Your task to perform on an android device: turn off priority inbox in the gmail app Image 0: 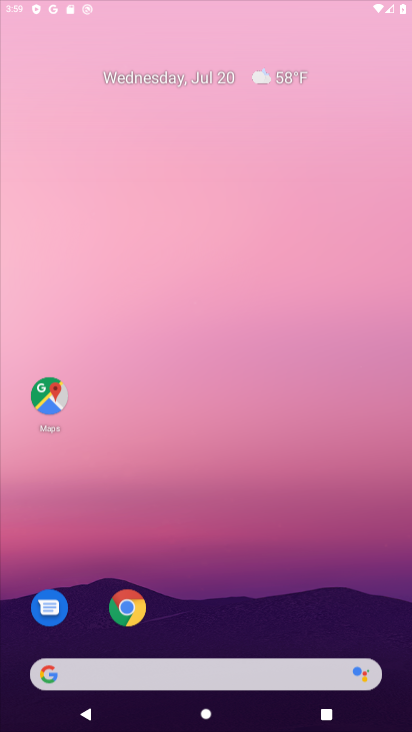
Step 0: drag from (269, 85) to (315, 0)
Your task to perform on an android device: turn off priority inbox in the gmail app Image 1: 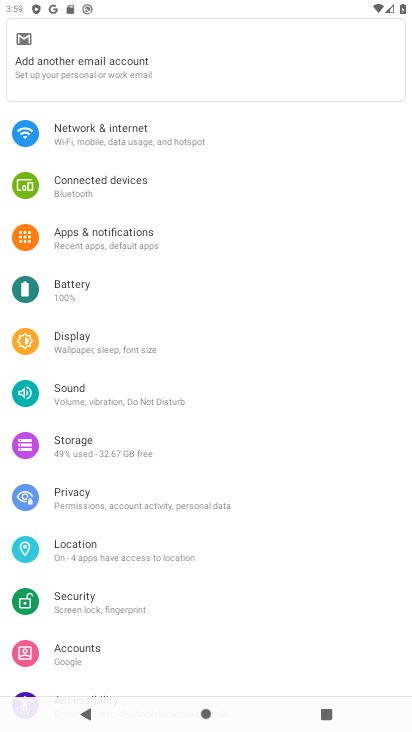
Step 1: press home button
Your task to perform on an android device: turn off priority inbox in the gmail app Image 2: 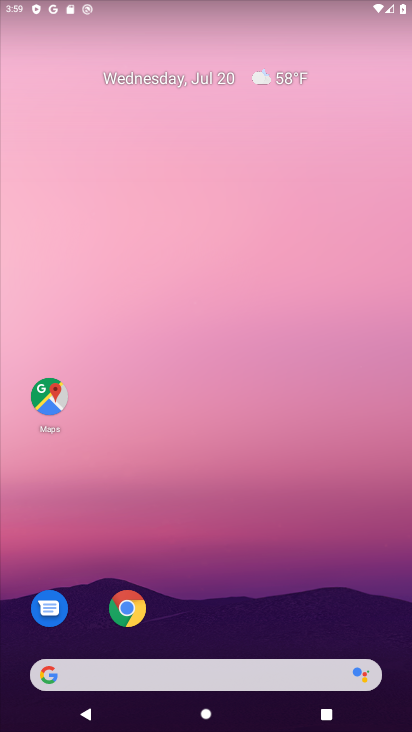
Step 2: drag from (190, 640) to (311, 4)
Your task to perform on an android device: turn off priority inbox in the gmail app Image 3: 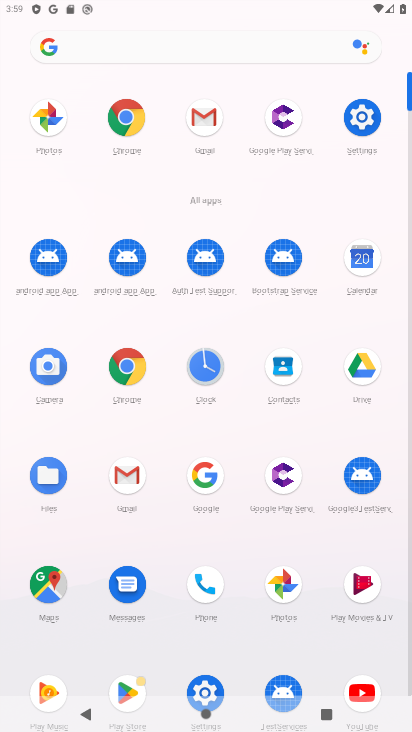
Step 3: click (126, 491)
Your task to perform on an android device: turn off priority inbox in the gmail app Image 4: 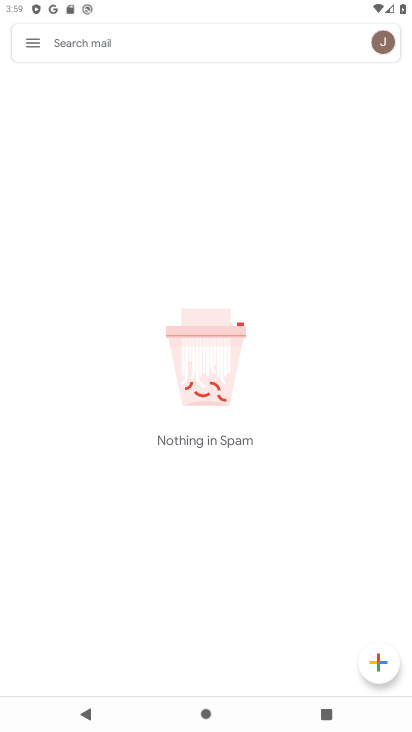
Step 4: click (29, 46)
Your task to perform on an android device: turn off priority inbox in the gmail app Image 5: 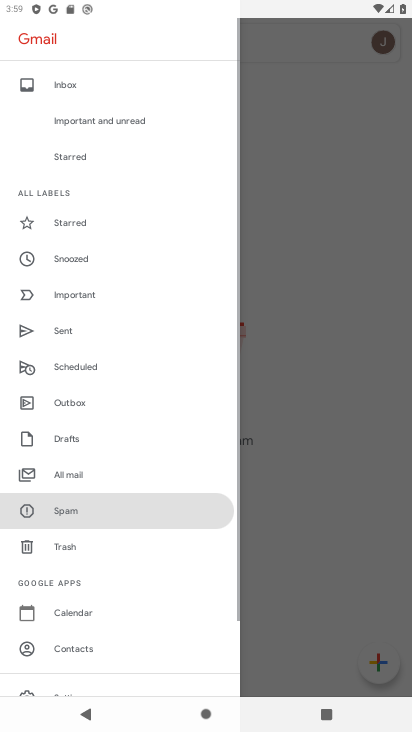
Step 5: drag from (85, 655) to (95, 195)
Your task to perform on an android device: turn off priority inbox in the gmail app Image 6: 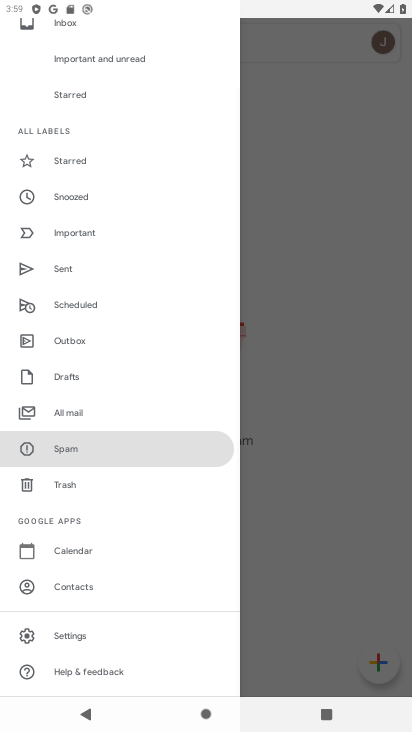
Step 6: click (55, 639)
Your task to perform on an android device: turn off priority inbox in the gmail app Image 7: 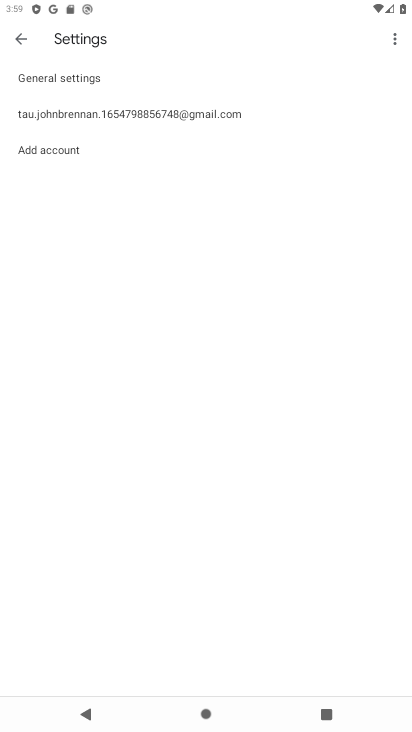
Step 7: click (98, 118)
Your task to perform on an android device: turn off priority inbox in the gmail app Image 8: 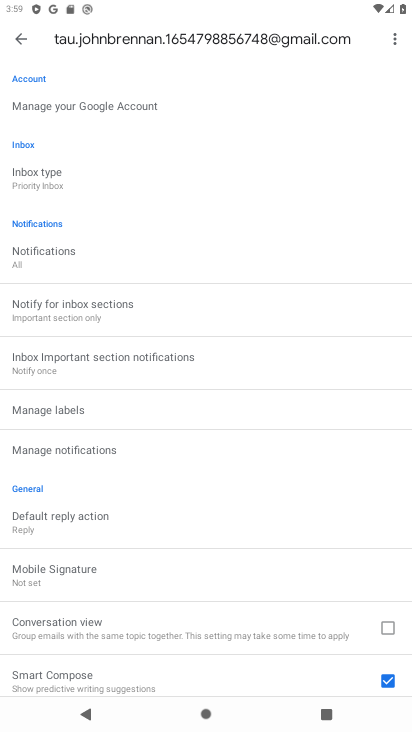
Step 8: click (61, 182)
Your task to perform on an android device: turn off priority inbox in the gmail app Image 9: 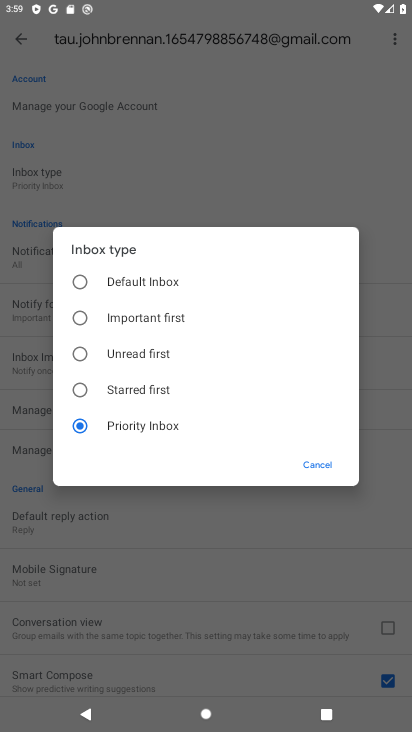
Step 9: click (144, 280)
Your task to perform on an android device: turn off priority inbox in the gmail app Image 10: 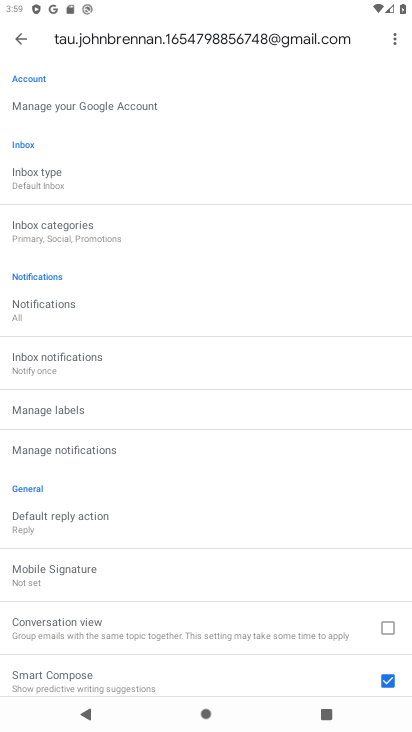
Step 10: task complete